Your task to perform on an android device: find snoozed emails in the gmail app Image 0: 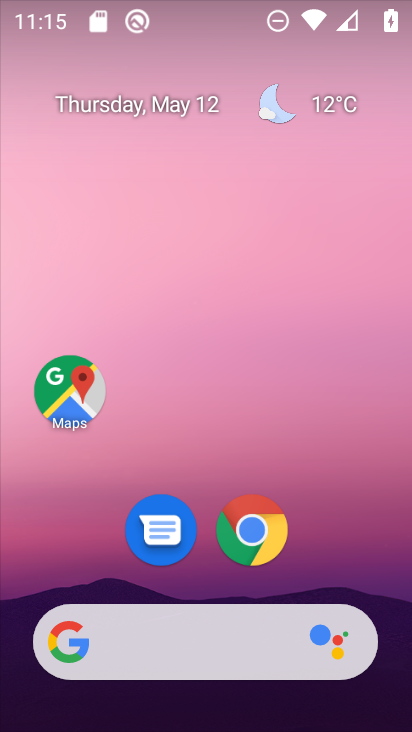
Step 0: drag from (162, 661) to (336, 108)
Your task to perform on an android device: find snoozed emails in the gmail app Image 1: 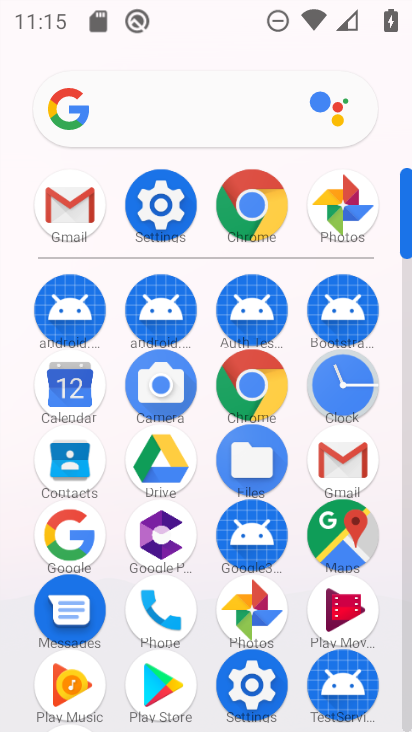
Step 1: click (333, 459)
Your task to perform on an android device: find snoozed emails in the gmail app Image 2: 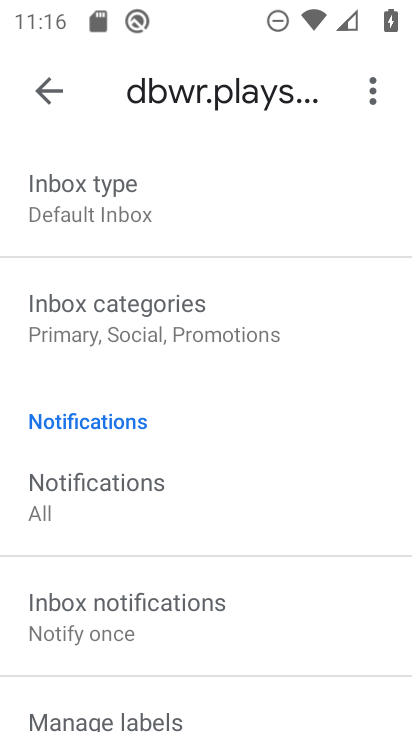
Step 2: click (60, 90)
Your task to perform on an android device: find snoozed emails in the gmail app Image 3: 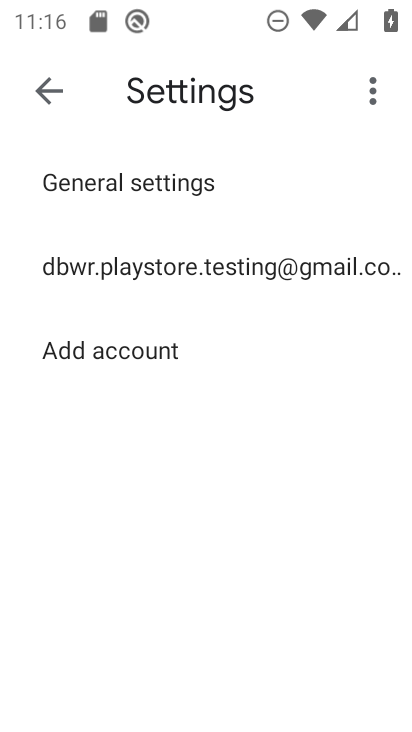
Step 3: click (60, 90)
Your task to perform on an android device: find snoozed emails in the gmail app Image 4: 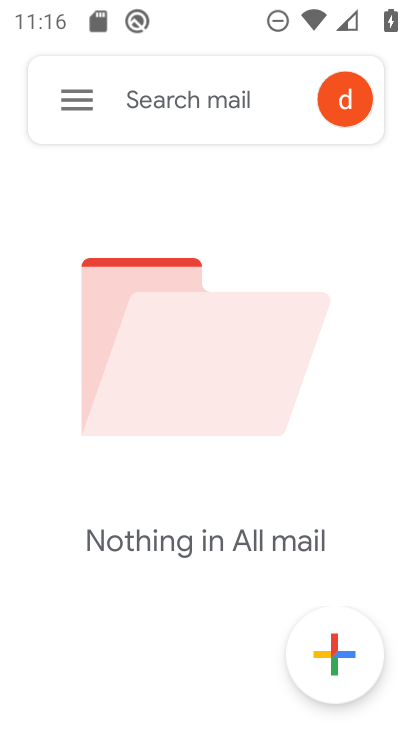
Step 4: click (73, 89)
Your task to perform on an android device: find snoozed emails in the gmail app Image 5: 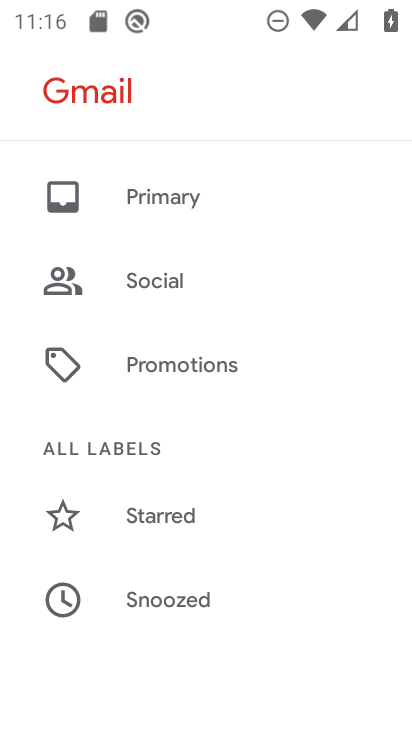
Step 5: drag from (306, 213) to (287, 285)
Your task to perform on an android device: find snoozed emails in the gmail app Image 6: 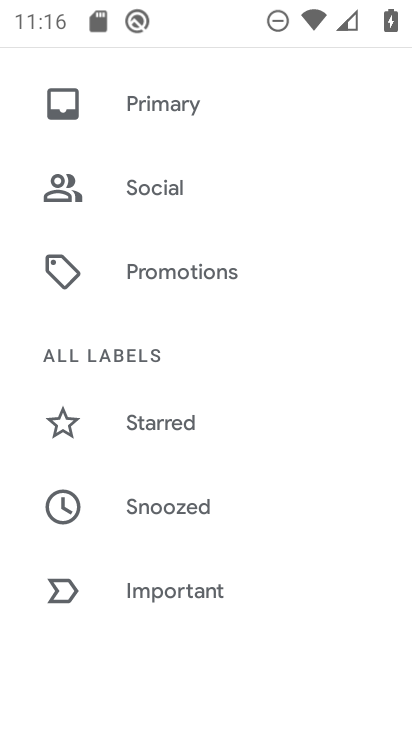
Step 6: click (159, 508)
Your task to perform on an android device: find snoozed emails in the gmail app Image 7: 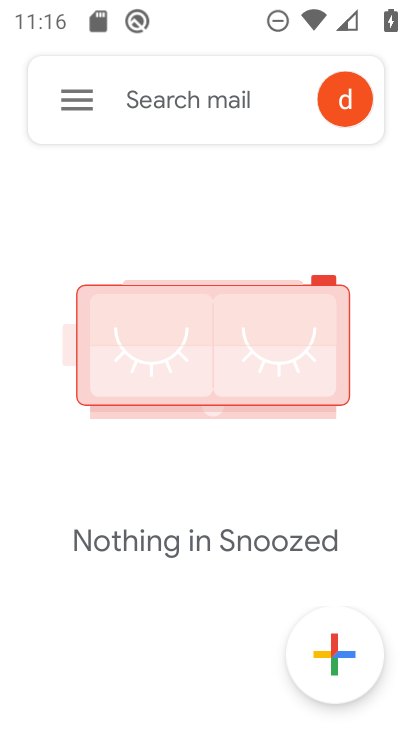
Step 7: task complete